Your task to perform on an android device: Open internet settings Image 0: 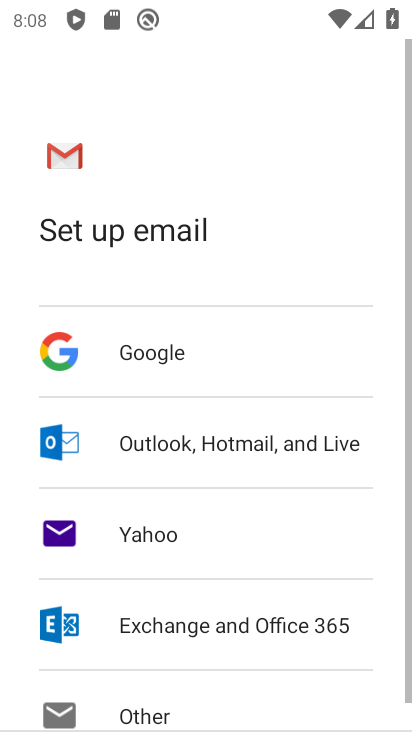
Step 0: press home button
Your task to perform on an android device: Open internet settings Image 1: 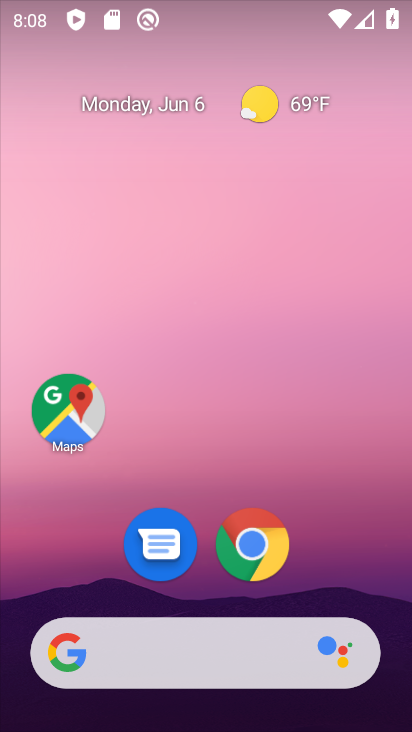
Step 1: drag from (199, 607) to (176, 240)
Your task to perform on an android device: Open internet settings Image 2: 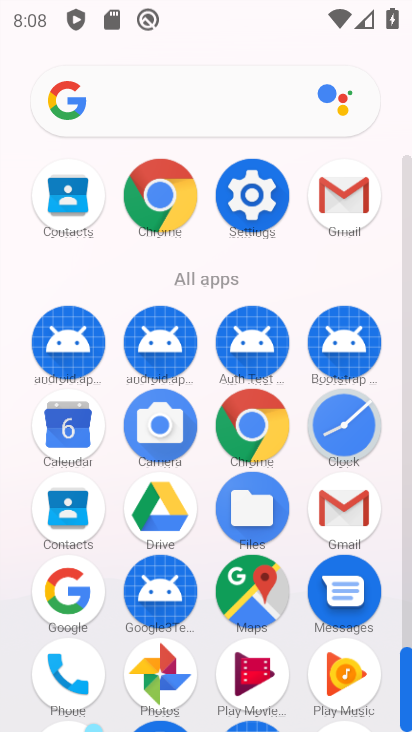
Step 2: click (252, 197)
Your task to perform on an android device: Open internet settings Image 3: 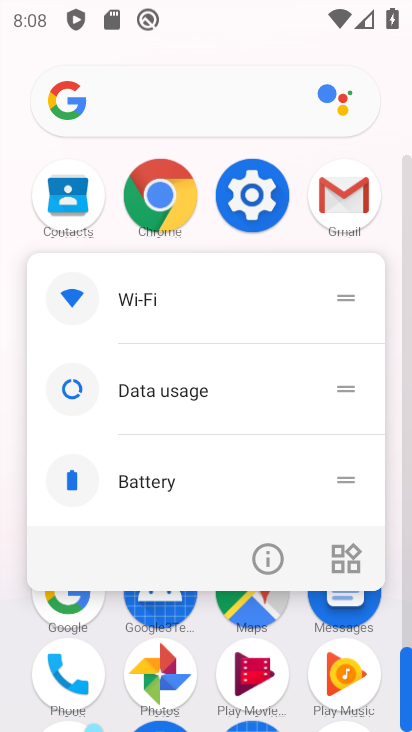
Step 3: click (265, 560)
Your task to perform on an android device: Open internet settings Image 4: 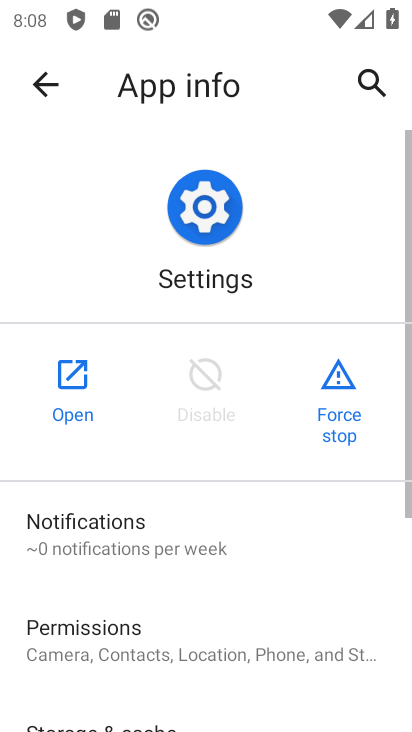
Step 4: click (79, 378)
Your task to perform on an android device: Open internet settings Image 5: 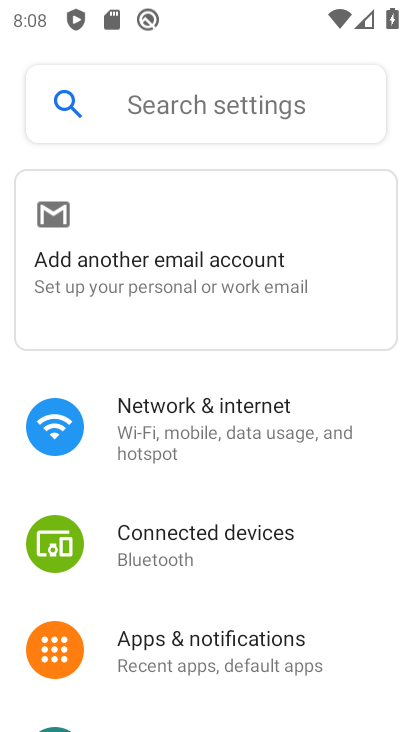
Step 5: click (185, 438)
Your task to perform on an android device: Open internet settings Image 6: 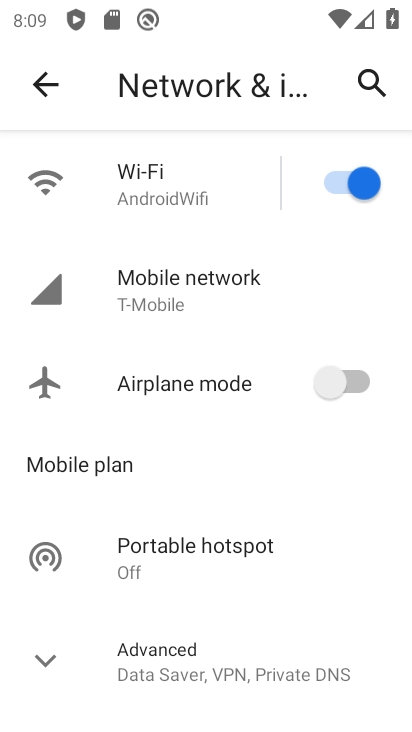
Step 6: task complete